Your task to perform on an android device: Open Google Chrome Image 0: 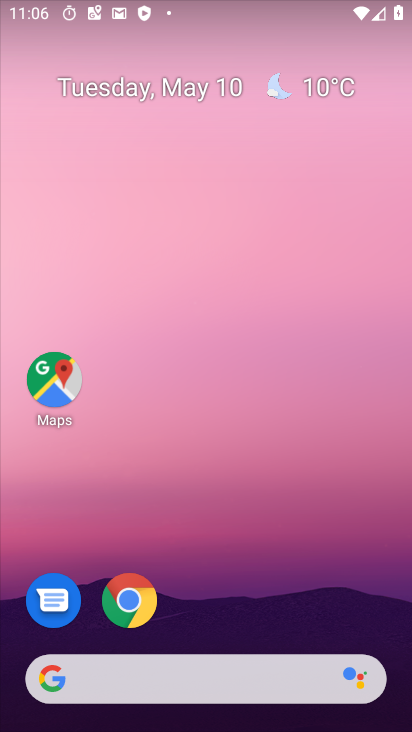
Step 0: drag from (243, 594) to (240, 41)
Your task to perform on an android device: Open Google Chrome Image 1: 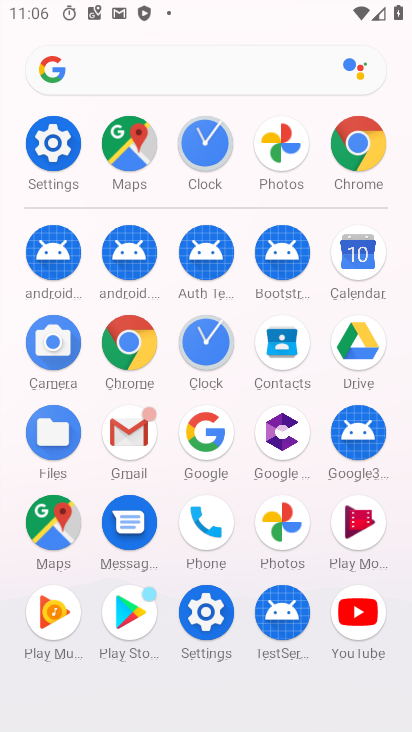
Step 1: click (125, 351)
Your task to perform on an android device: Open Google Chrome Image 2: 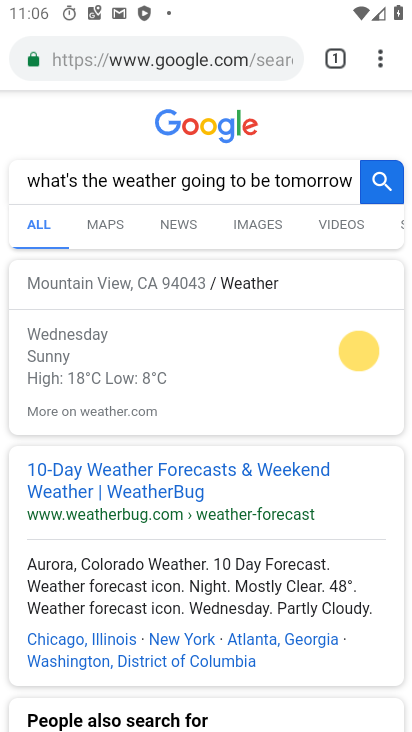
Step 2: task complete